Your task to perform on an android device: Go to calendar. Show me events next week Image 0: 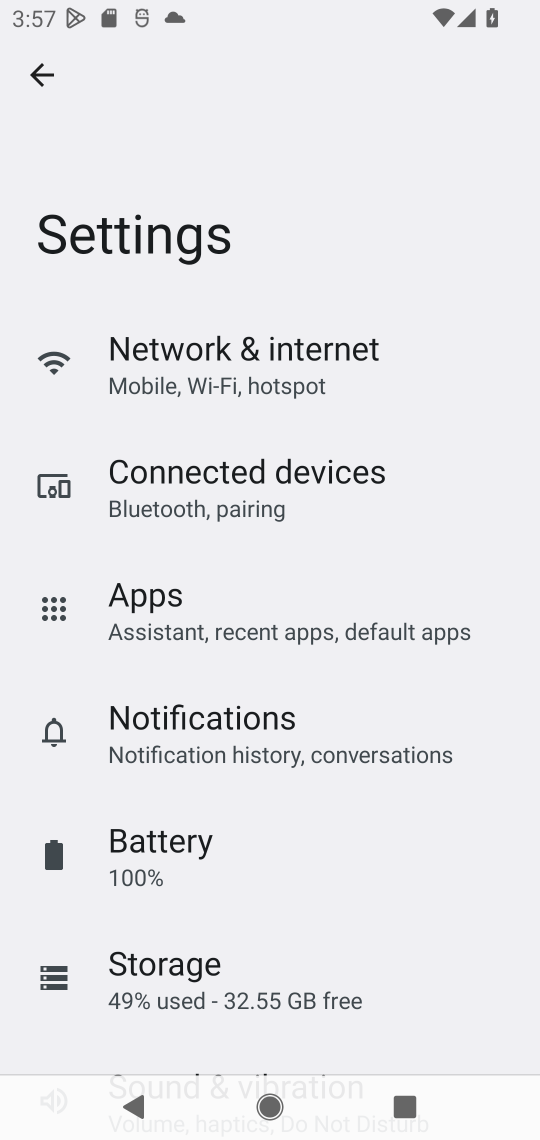
Step 0: press home button
Your task to perform on an android device: Go to calendar. Show me events next week Image 1: 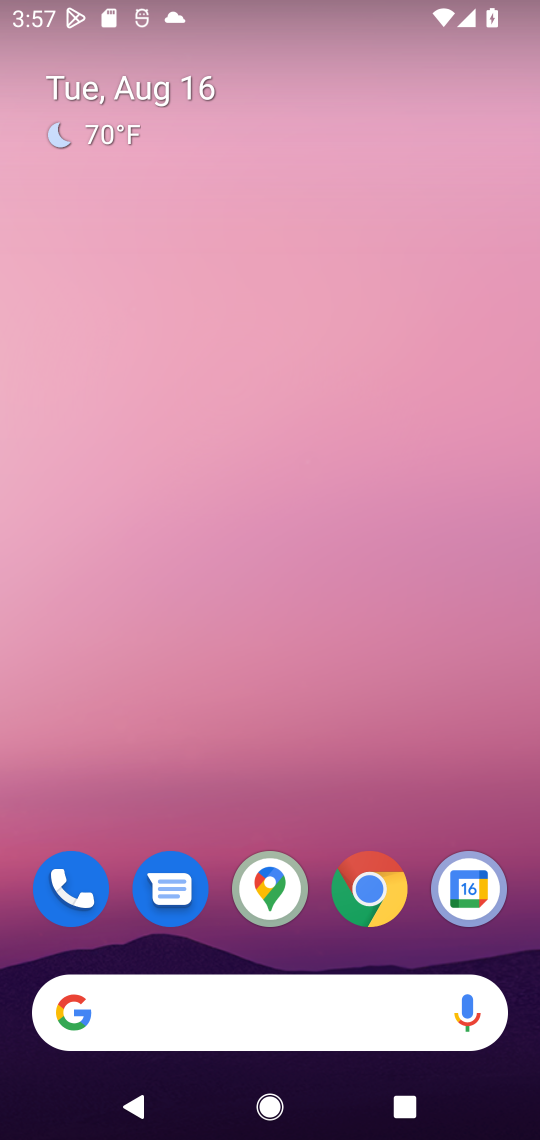
Step 1: click (466, 895)
Your task to perform on an android device: Go to calendar. Show me events next week Image 2: 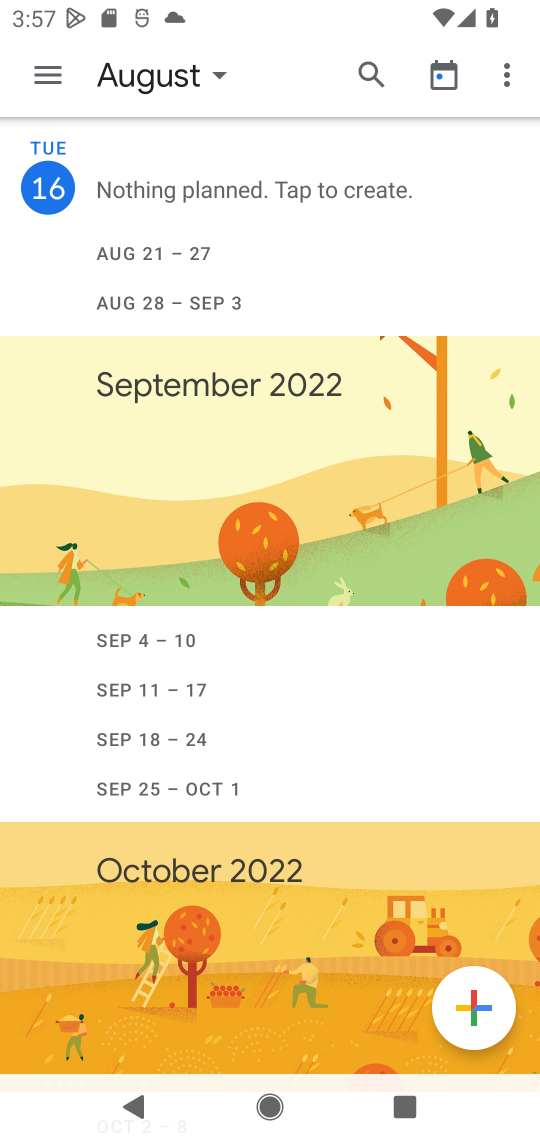
Step 2: task complete